Your task to perform on an android device: toggle location history Image 0: 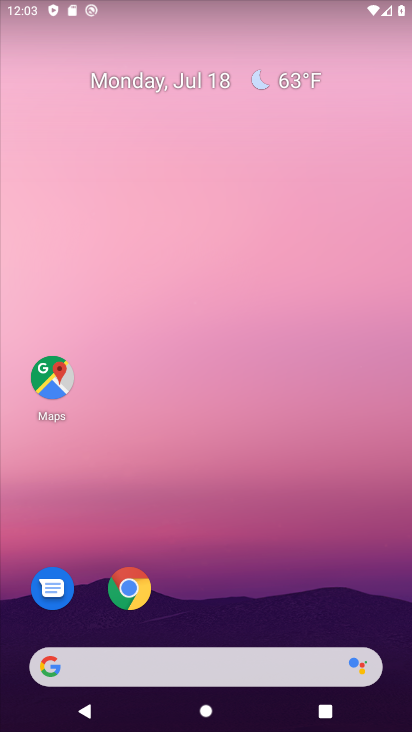
Step 0: drag from (220, 713) to (219, 109)
Your task to perform on an android device: toggle location history Image 1: 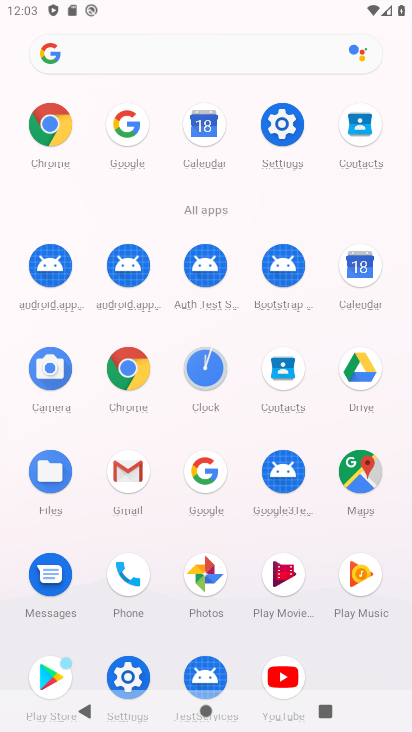
Step 1: click (279, 124)
Your task to perform on an android device: toggle location history Image 2: 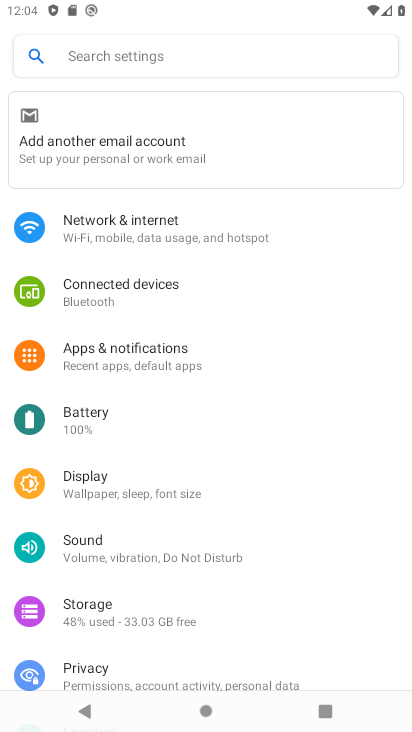
Step 2: drag from (126, 653) to (116, 373)
Your task to perform on an android device: toggle location history Image 3: 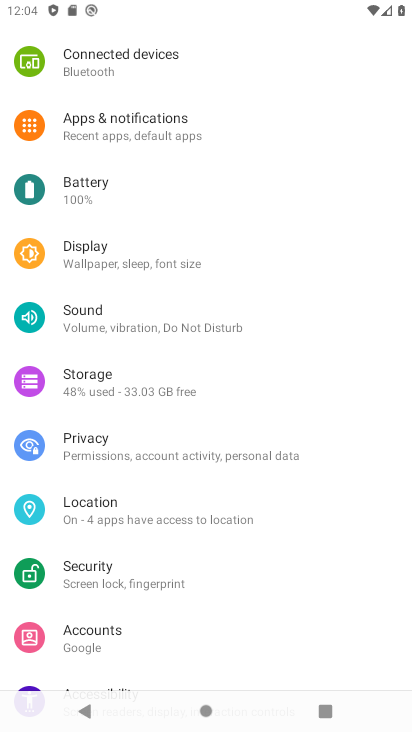
Step 3: click (93, 508)
Your task to perform on an android device: toggle location history Image 4: 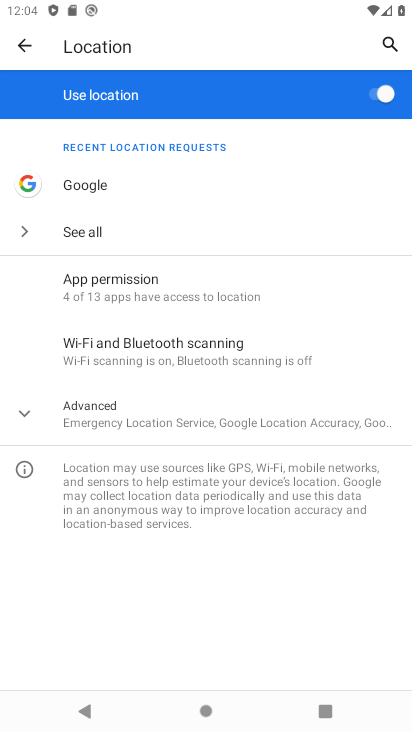
Step 4: click (132, 413)
Your task to perform on an android device: toggle location history Image 5: 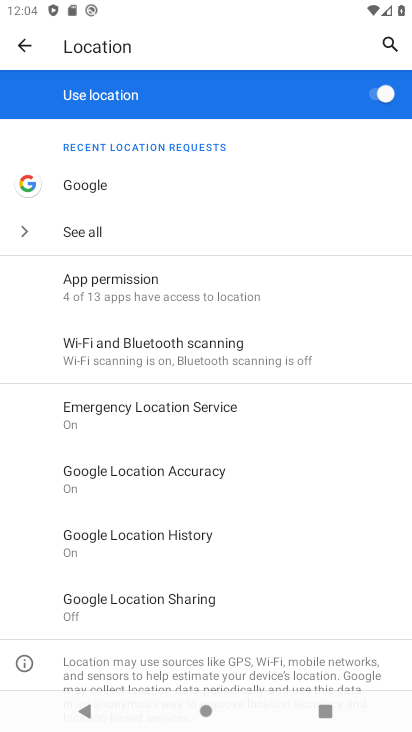
Step 5: click (180, 533)
Your task to perform on an android device: toggle location history Image 6: 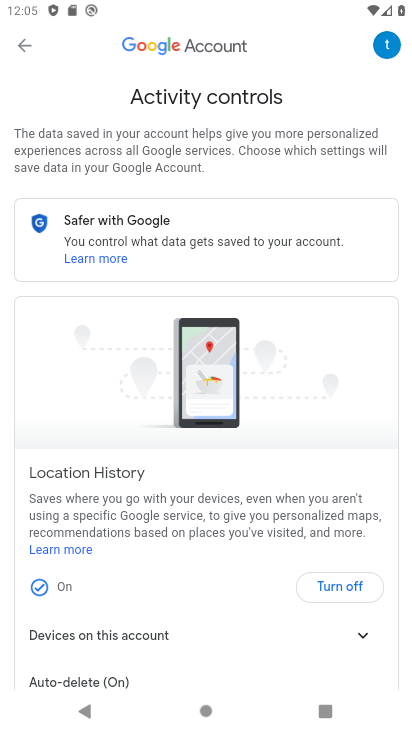
Step 6: click (337, 587)
Your task to perform on an android device: toggle location history Image 7: 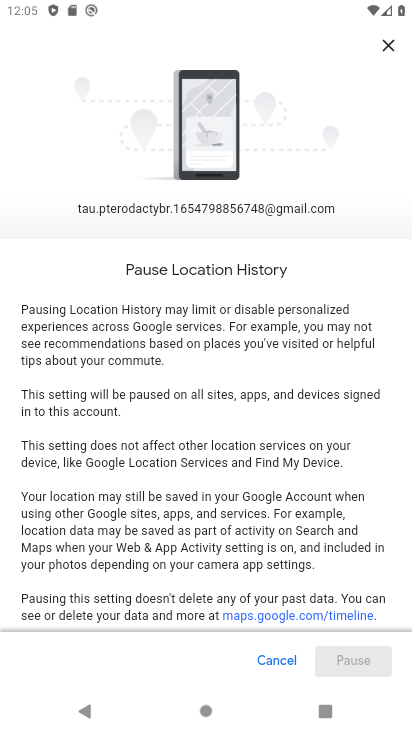
Step 7: drag from (327, 581) to (312, 281)
Your task to perform on an android device: toggle location history Image 8: 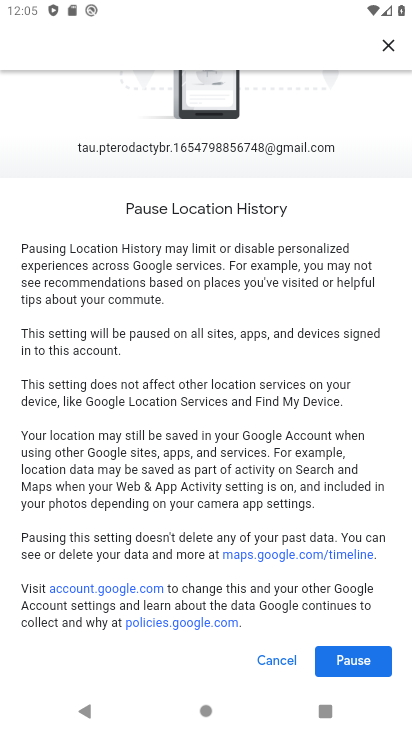
Step 8: click (341, 666)
Your task to perform on an android device: toggle location history Image 9: 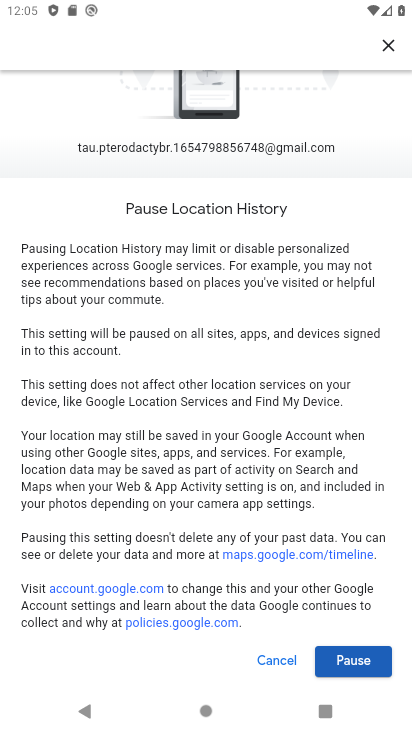
Step 9: click (341, 666)
Your task to perform on an android device: toggle location history Image 10: 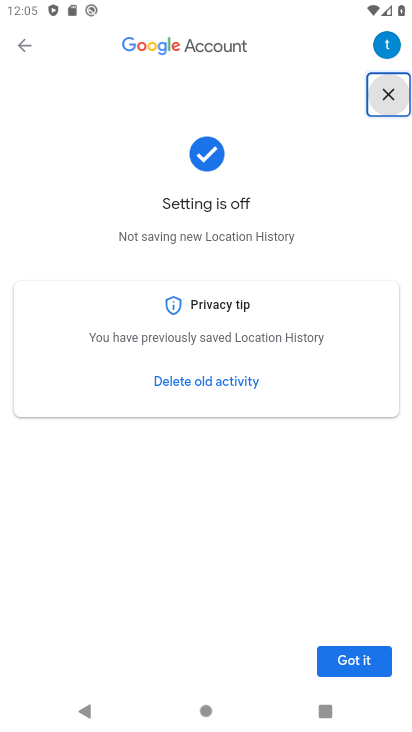
Step 10: click (341, 666)
Your task to perform on an android device: toggle location history Image 11: 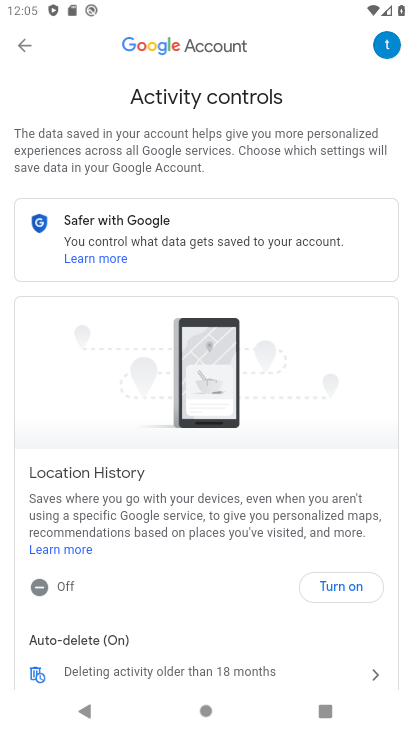
Step 11: task complete